Your task to perform on an android device: turn on bluetooth scan Image 0: 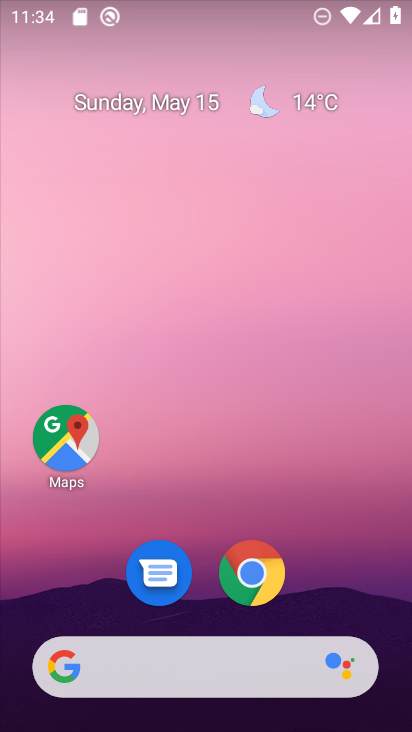
Step 0: drag from (317, 466) to (206, 93)
Your task to perform on an android device: turn on bluetooth scan Image 1: 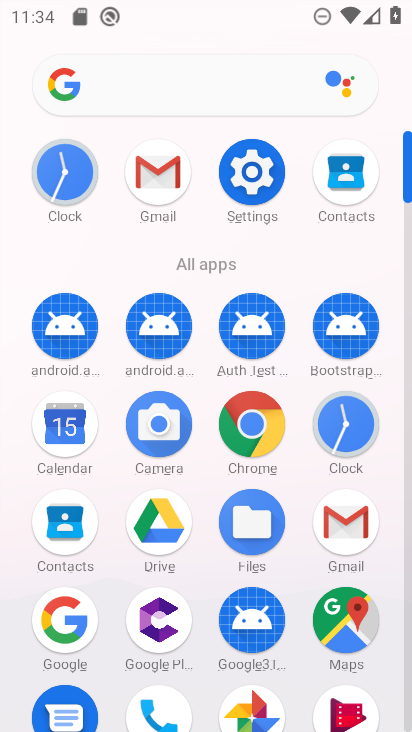
Step 1: click (244, 173)
Your task to perform on an android device: turn on bluetooth scan Image 2: 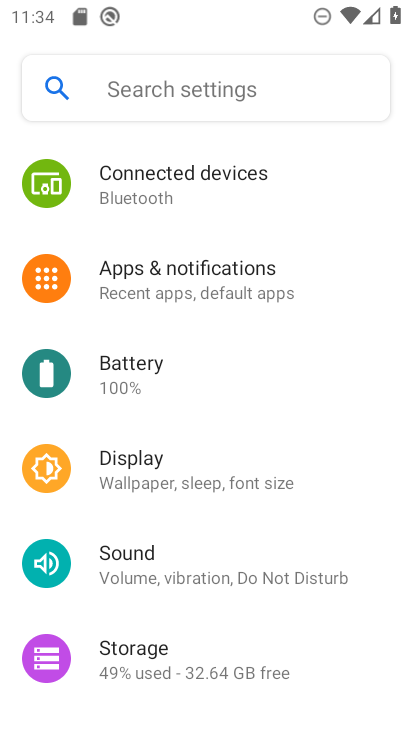
Step 2: drag from (237, 533) to (192, 123)
Your task to perform on an android device: turn on bluetooth scan Image 3: 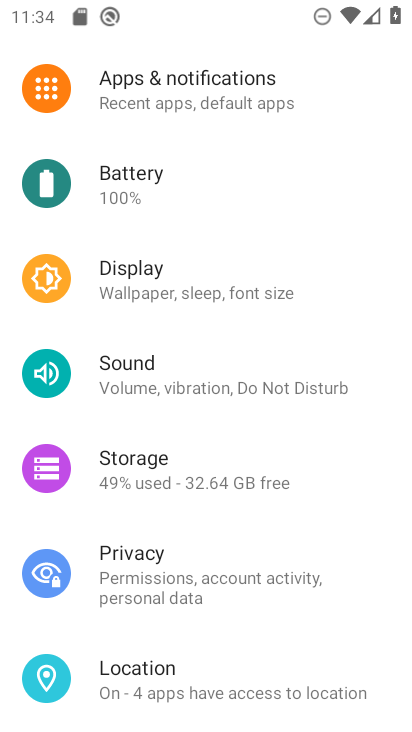
Step 3: drag from (207, 529) to (171, 242)
Your task to perform on an android device: turn on bluetooth scan Image 4: 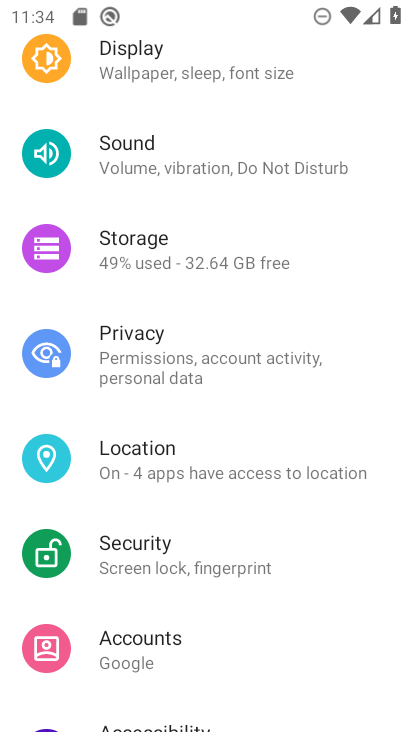
Step 4: click (140, 448)
Your task to perform on an android device: turn on bluetooth scan Image 5: 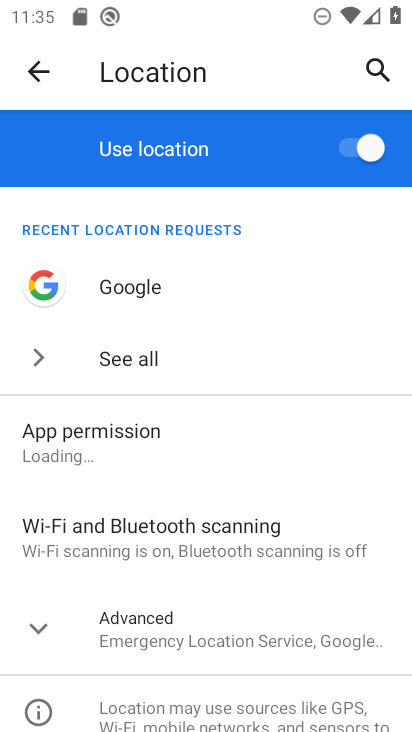
Step 5: click (104, 518)
Your task to perform on an android device: turn on bluetooth scan Image 6: 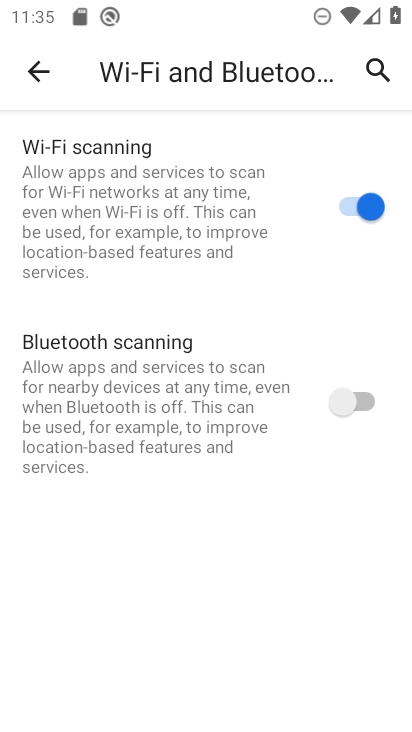
Step 6: click (341, 402)
Your task to perform on an android device: turn on bluetooth scan Image 7: 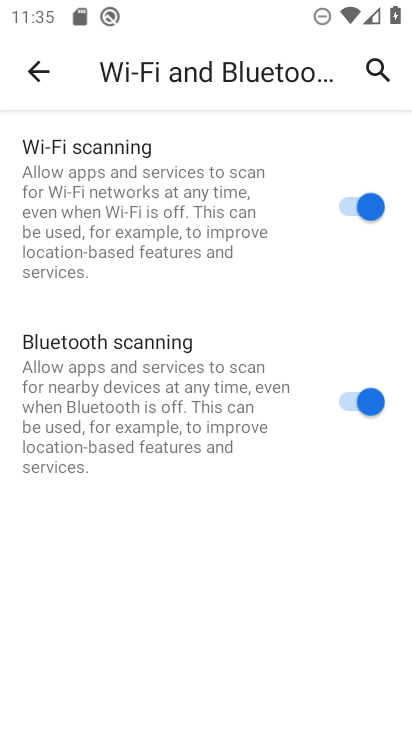
Step 7: task complete